Your task to perform on an android device: turn off location history Image 0: 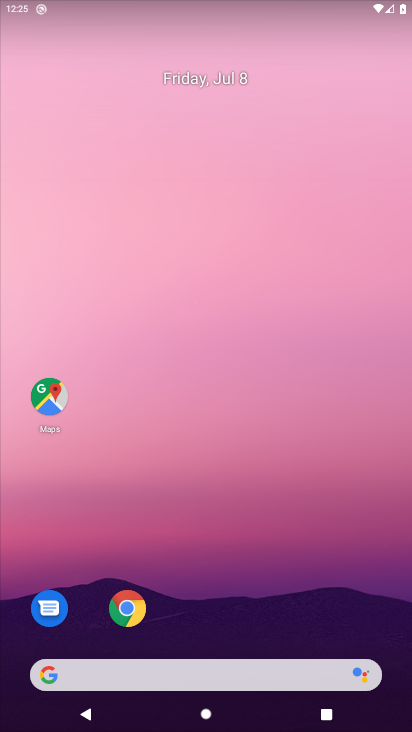
Step 0: press home button
Your task to perform on an android device: turn off location history Image 1: 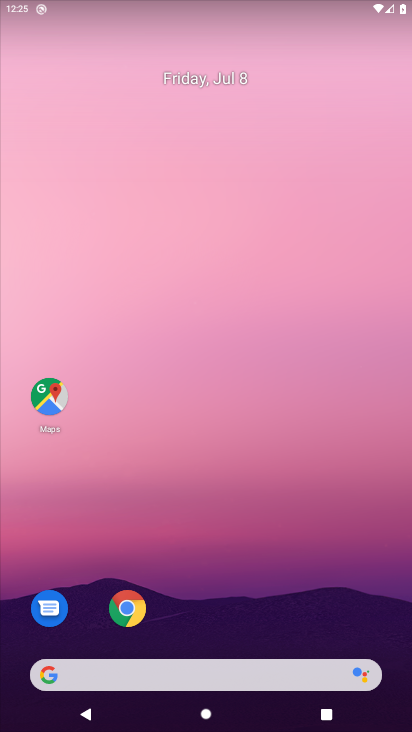
Step 1: click (43, 389)
Your task to perform on an android device: turn off location history Image 2: 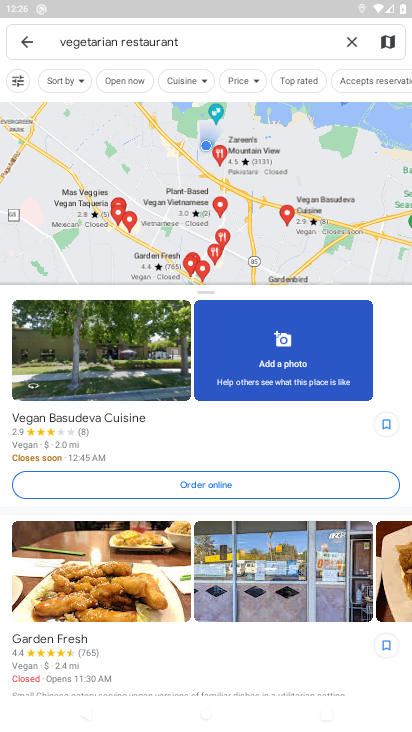
Step 2: click (18, 44)
Your task to perform on an android device: turn off location history Image 3: 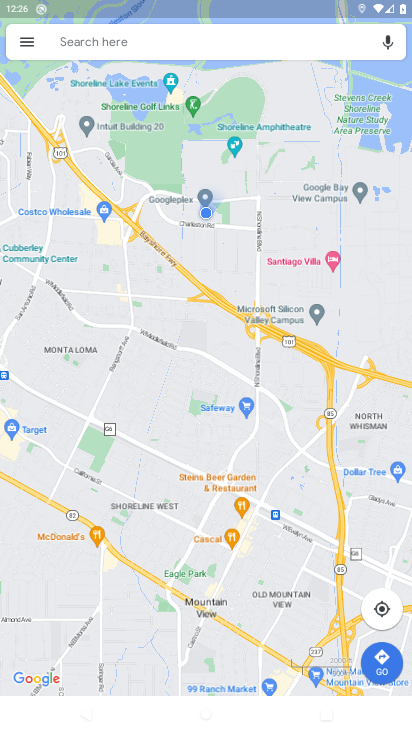
Step 3: click (15, 40)
Your task to perform on an android device: turn off location history Image 4: 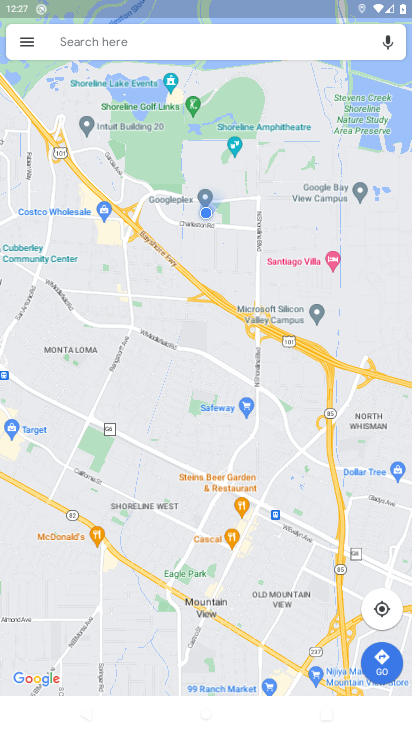
Step 4: click (19, 52)
Your task to perform on an android device: turn off location history Image 5: 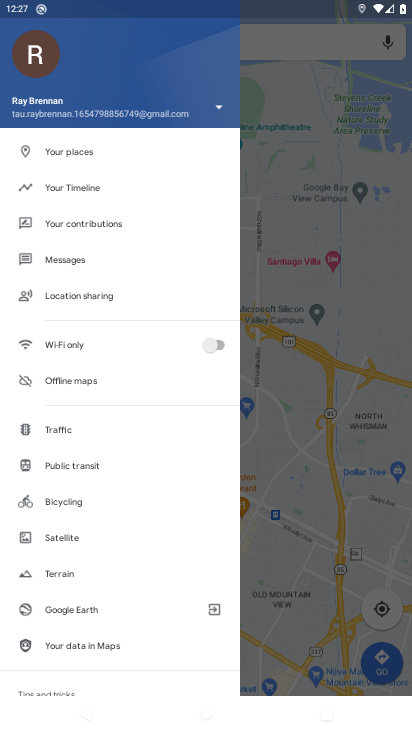
Step 5: click (84, 198)
Your task to perform on an android device: turn off location history Image 6: 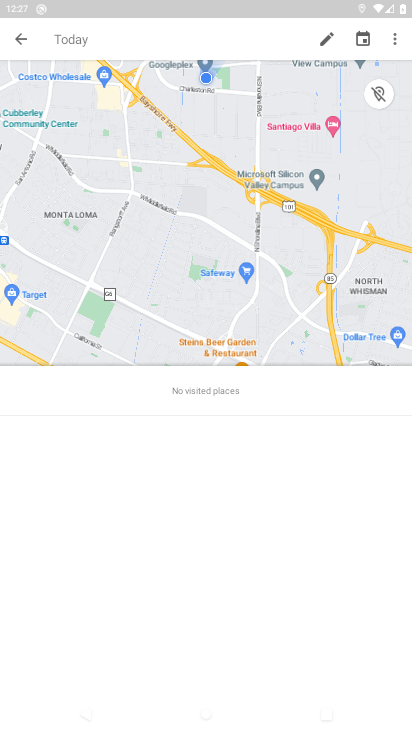
Step 6: drag from (395, 35) to (290, 254)
Your task to perform on an android device: turn off location history Image 7: 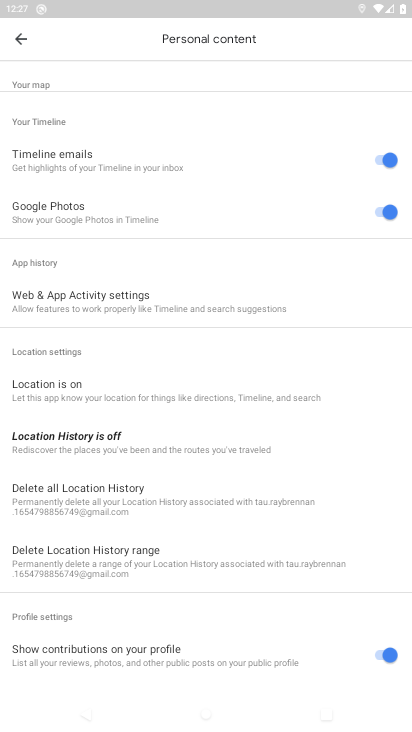
Step 7: click (22, 439)
Your task to perform on an android device: turn off location history Image 8: 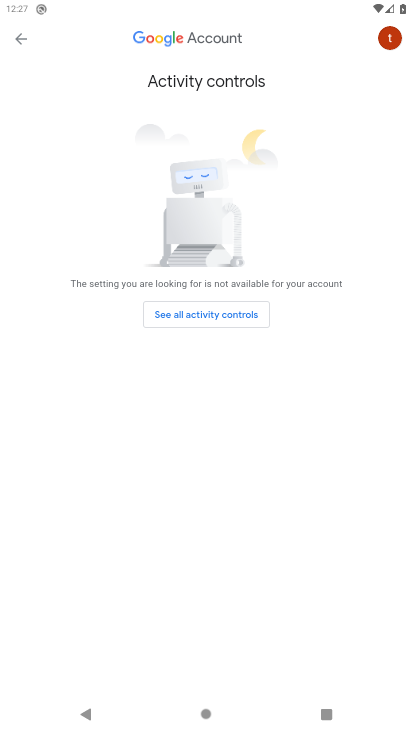
Step 8: click (209, 319)
Your task to perform on an android device: turn off location history Image 9: 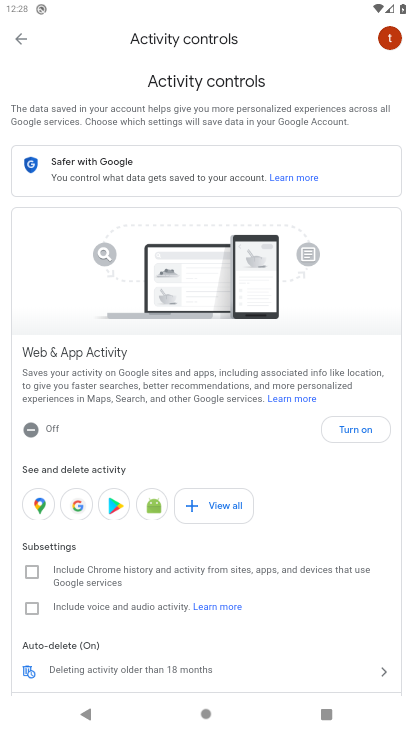
Step 9: task complete